Your task to perform on an android device: Do I have any events today? Image 0: 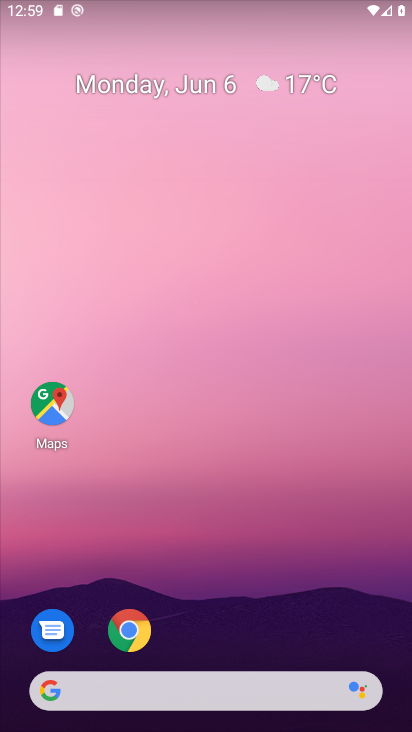
Step 0: drag from (178, 570) to (210, 0)
Your task to perform on an android device: Do I have any events today? Image 1: 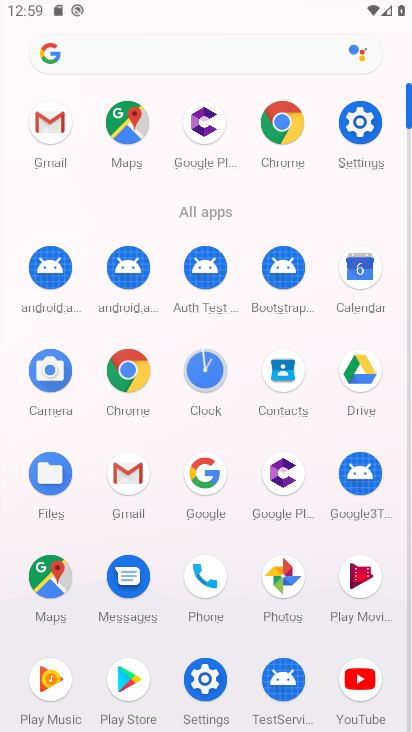
Step 1: click (366, 275)
Your task to perform on an android device: Do I have any events today? Image 2: 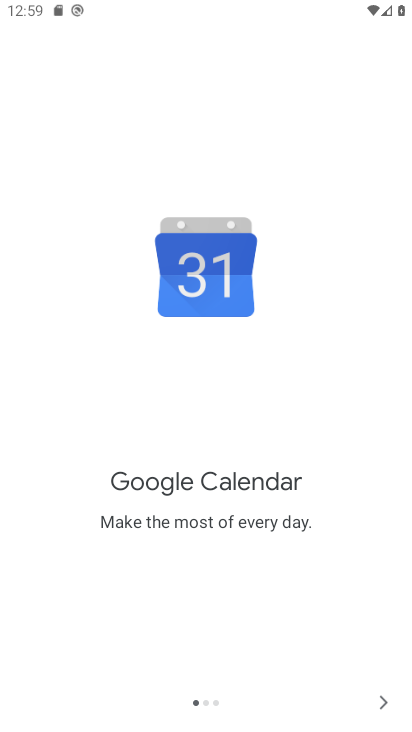
Step 2: click (389, 703)
Your task to perform on an android device: Do I have any events today? Image 3: 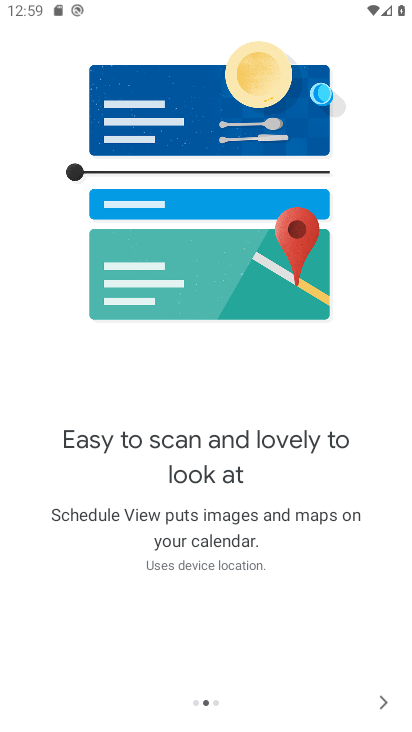
Step 3: click (388, 703)
Your task to perform on an android device: Do I have any events today? Image 4: 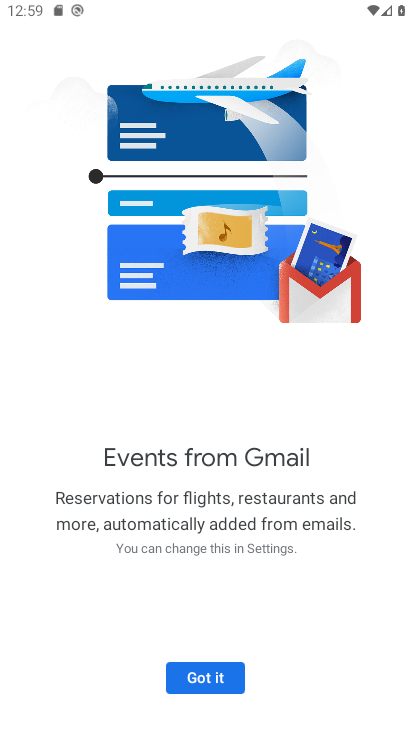
Step 4: click (227, 689)
Your task to perform on an android device: Do I have any events today? Image 5: 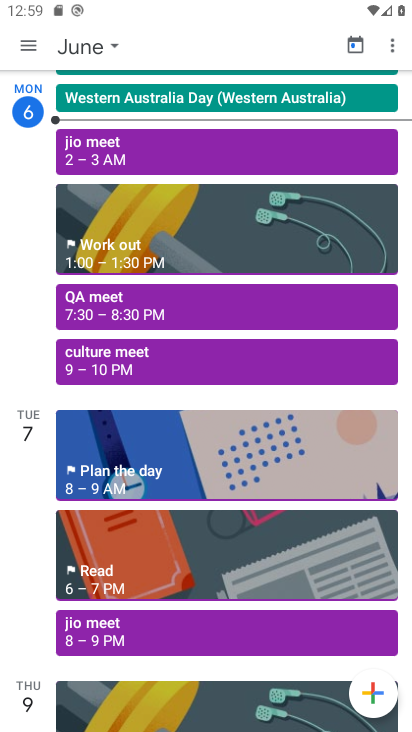
Step 5: click (37, 45)
Your task to perform on an android device: Do I have any events today? Image 6: 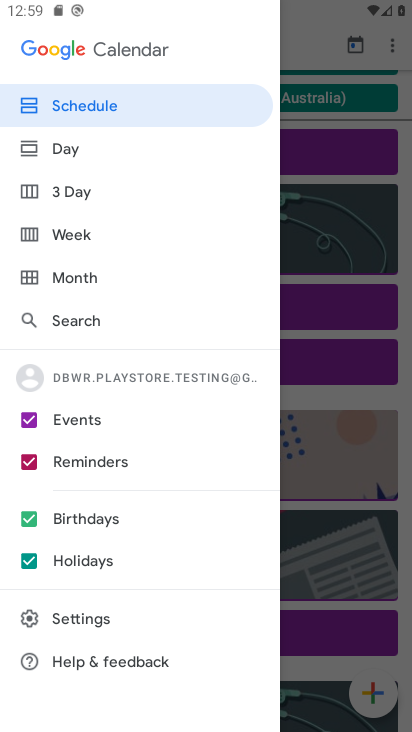
Step 6: click (33, 466)
Your task to perform on an android device: Do I have any events today? Image 7: 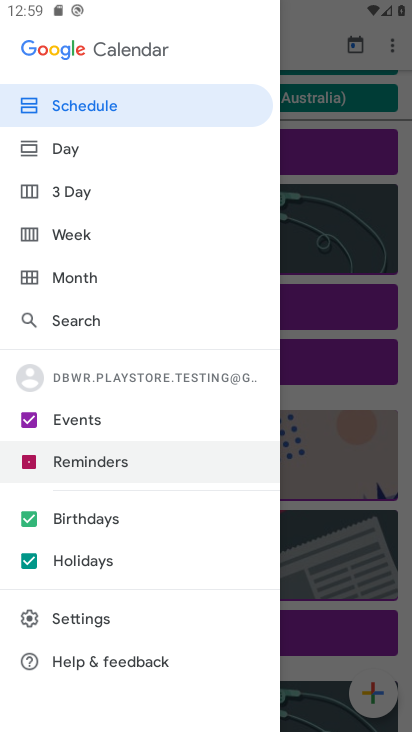
Step 7: click (33, 522)
Your task to perform on an android device: Do I have any events today? Image 8: 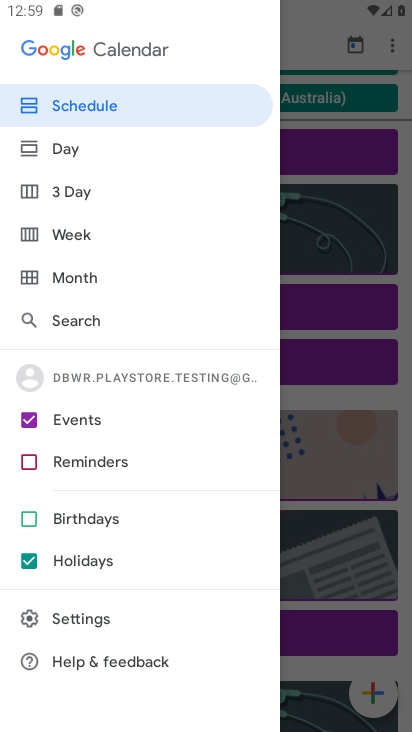
Step 8: click (27, 560)
Your task to perform on an android device: Do I have any events today? Image 9: 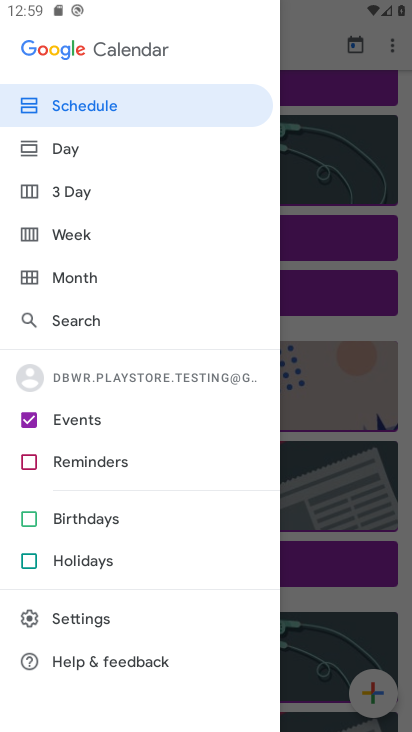
Step 9: click (140, 155)
Your task to perform on an android device: Do I have any events today? Image 10: 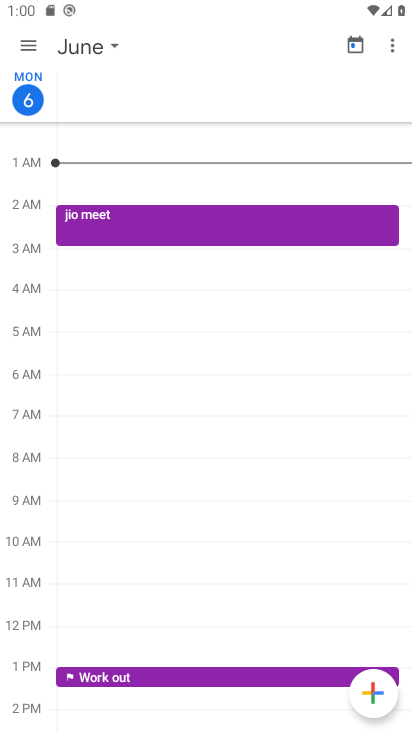
Step 10: click (164, 671)
Your task to perform on an android device: Do I have any events today? Image 11: 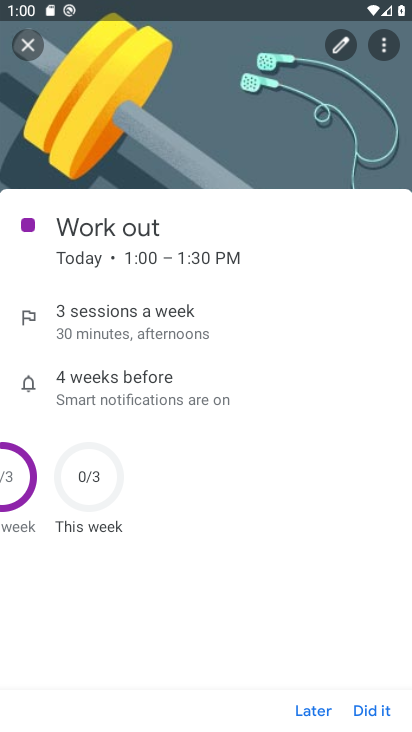
Step 11: task complete